Your task to perform on an android device: Open my contact list Image 0: 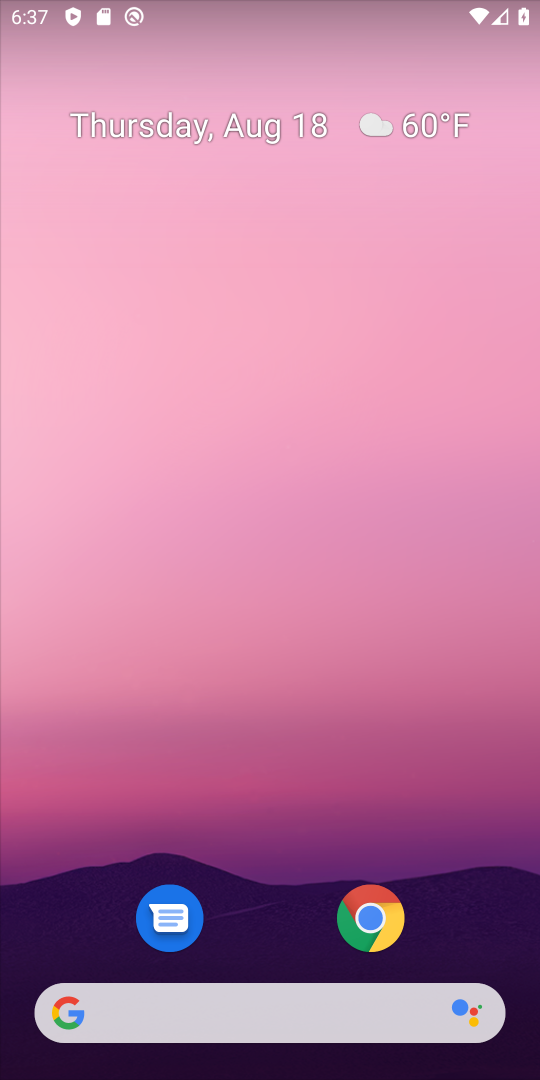
Step 0: press home button
Your task to perform on an android device: Open my contact list Image 1: 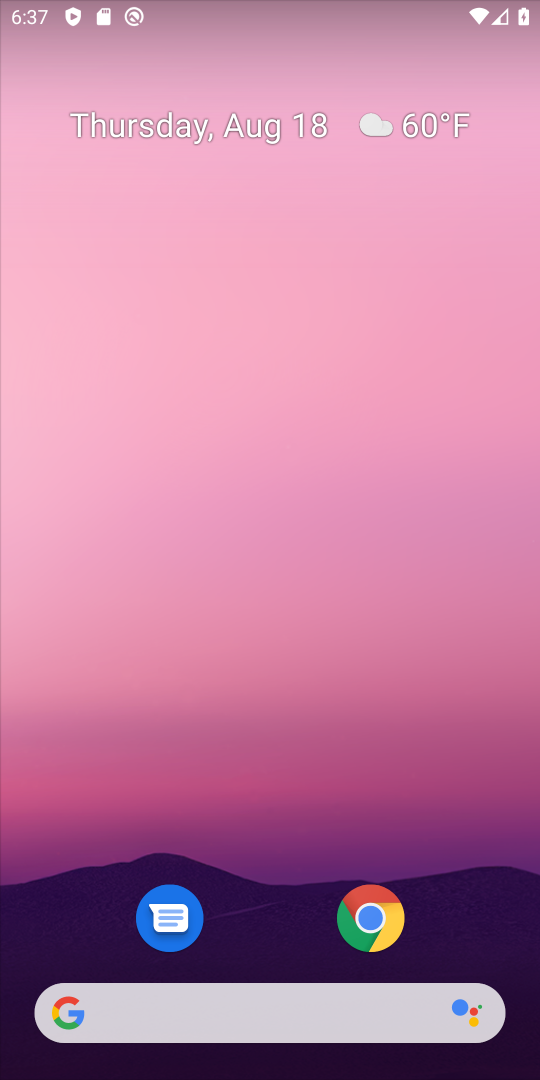
Step 1: drag from (302, 940) to (327, 212)
Your task to perform on an android device: Open my contact list Image 2: 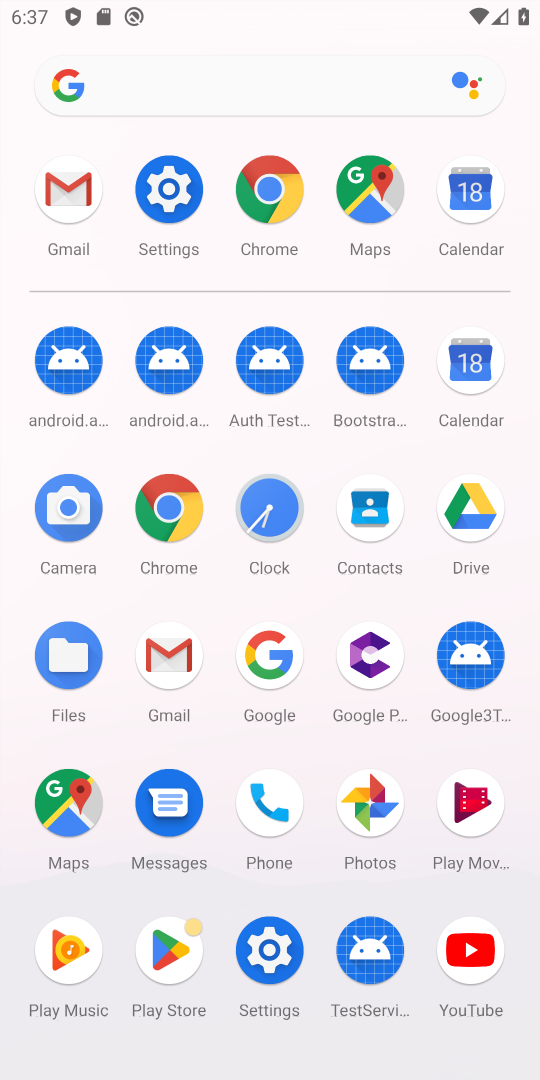
Step 2: click (370, 514)
Your task to perform on an android device: Open my contact list Image 3: 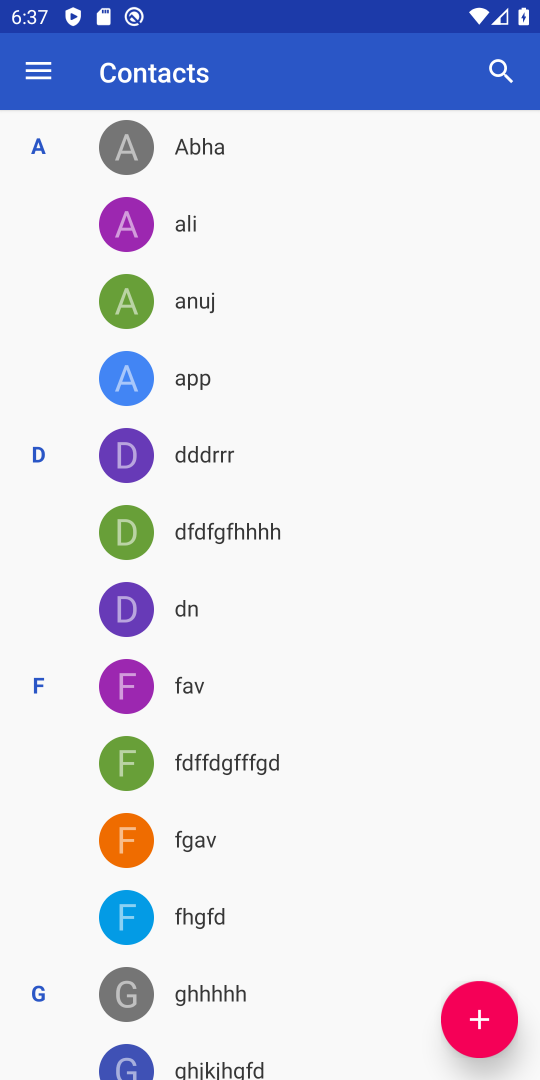
Step 3: task complete